Your task to perform on an android device: See recent photos Image 0: 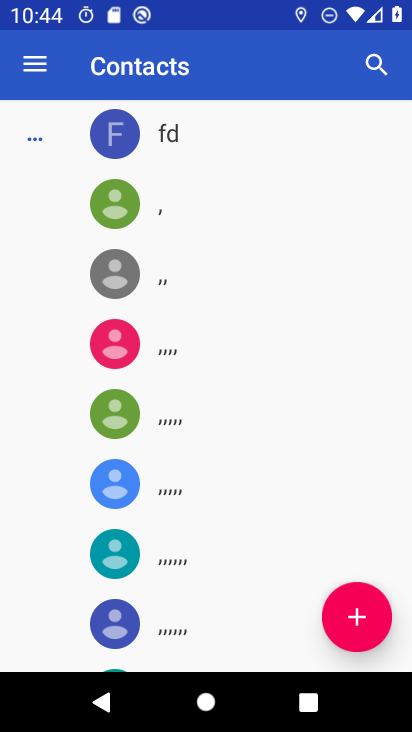
Step 0: press home button
Your task to perform on an android device: See recent photos Image 1: 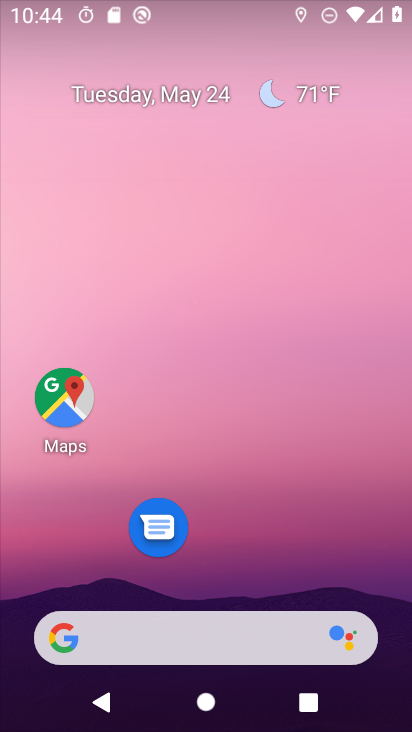
Step 1: click (266, 26)
Your task to perform on an android device: See recent photos Image 2: 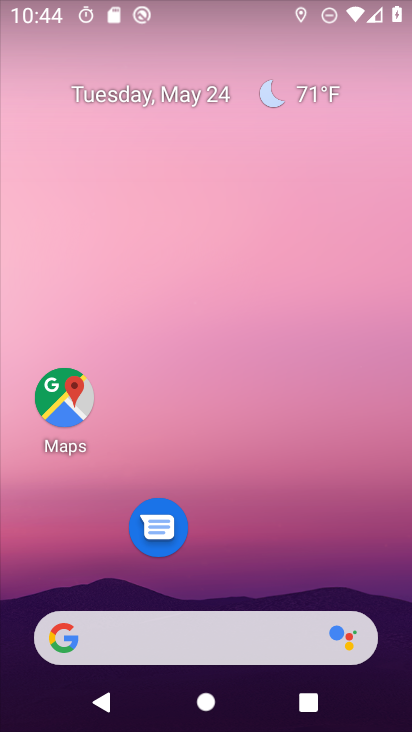
Step 2: drag from (226, 573) to (222, 117)
Your task to perform on an android device: See recent photos Image 3: 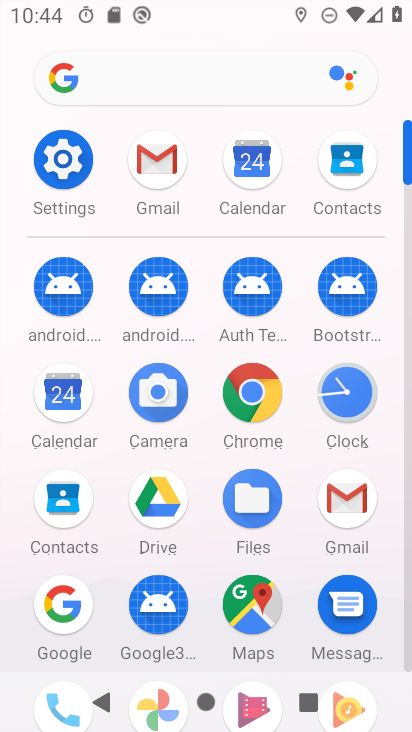
Step 3: drag from (201, 570) to (209, 190)
Your task to perform on an android device: See recent photos Image 4: 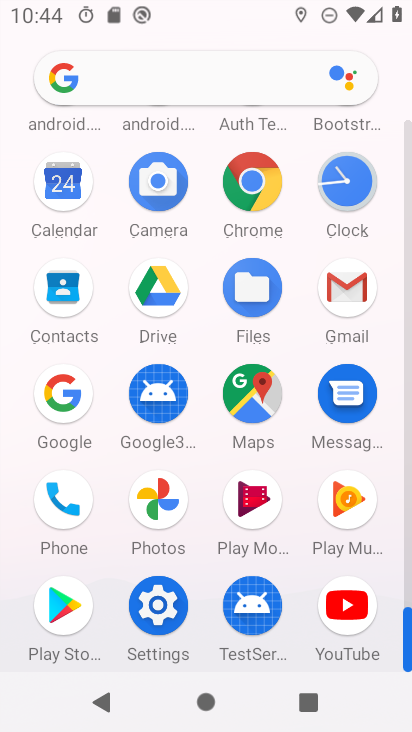
Step 4: click (160, 504)
Your task to perform on an android device: See recent photos Image 5: 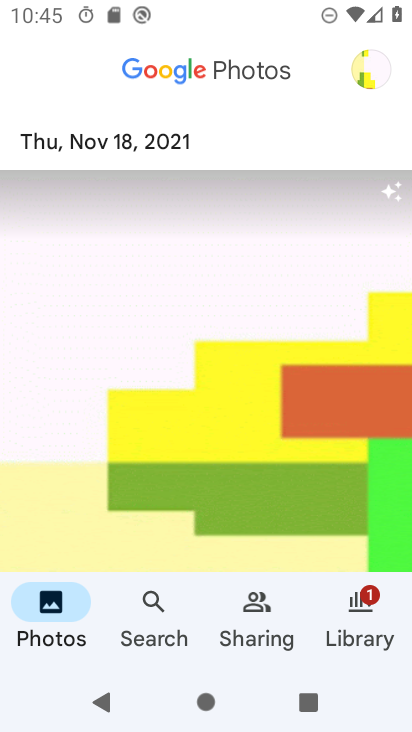
Step 5: task complete